Your task to perform on an android device: Open accessibility settings Image 0: 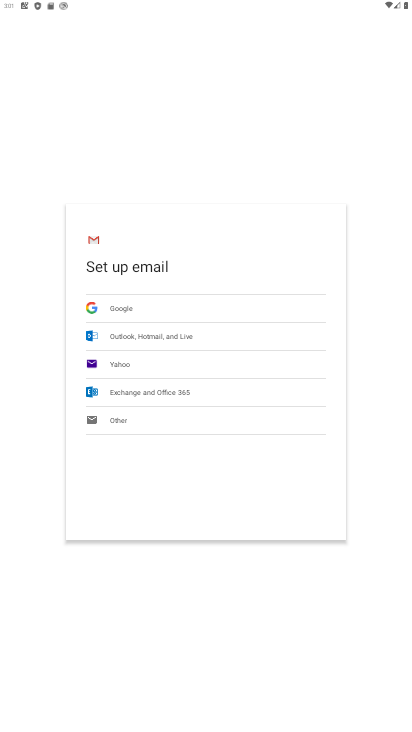
Step 0: press home button
Your task to perform on an android device: Open accessibility settings Image 1: 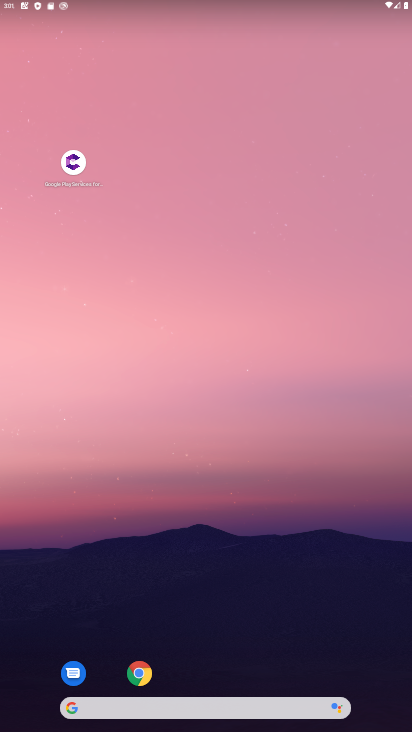
Step 1: drag from (172, 706) to (230, 15)
Your task to perform on an android device: Open accessibility settings Image 2: 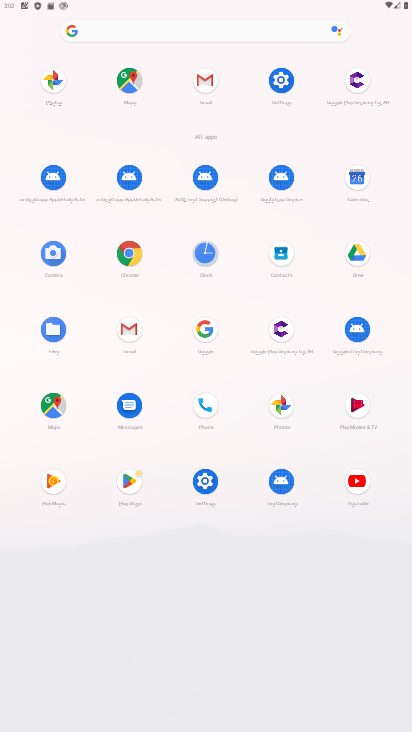
Step 2: click (278, 80)
Your task to perform on an android device: Open accessibility settings Image 3: 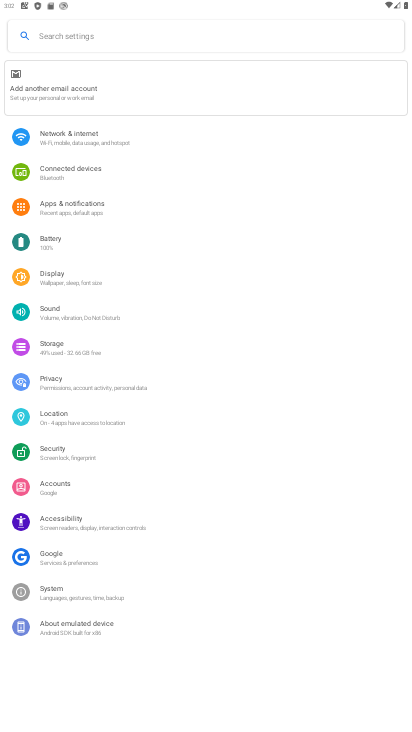
Step 3: click (71, 525)
Your task to perform on an android device: Open accessibility settings Image 4: 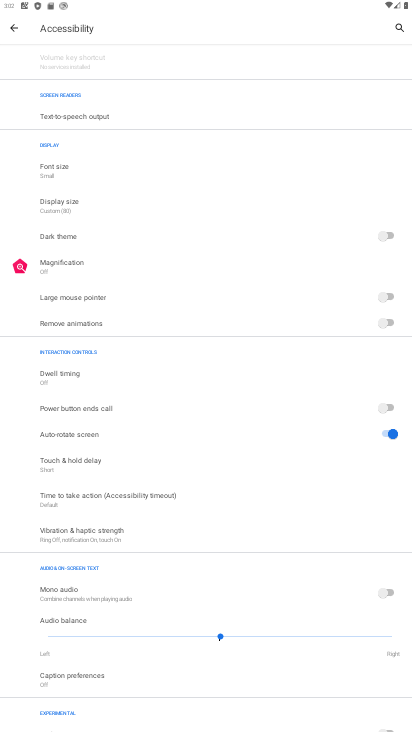
Step 4: task complete